Your task to perform on an android device: Open sound settings Image 0: 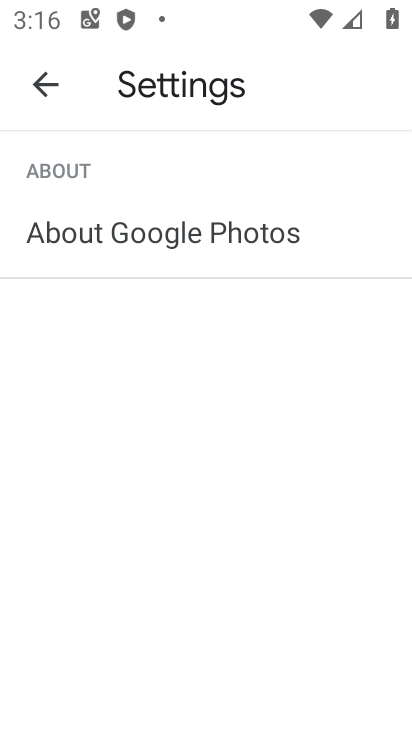
Step 0: press home button
Your task to perform on an android device: Open sound settings Image 1: 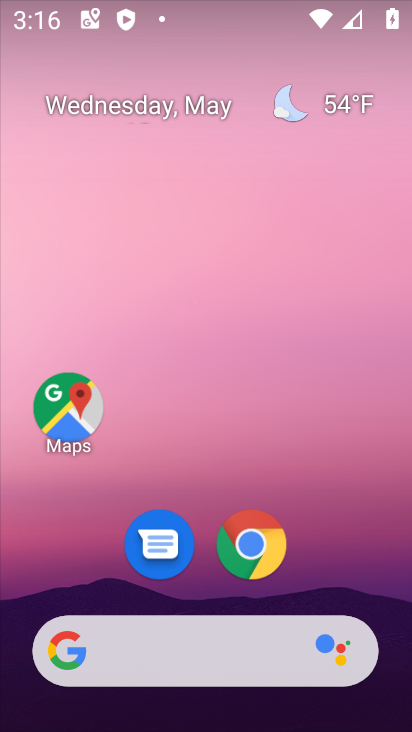
Step 1: drag from (251, 477) to (350, 57)
Your task to perform on an android device: Open sound settings Image 2: 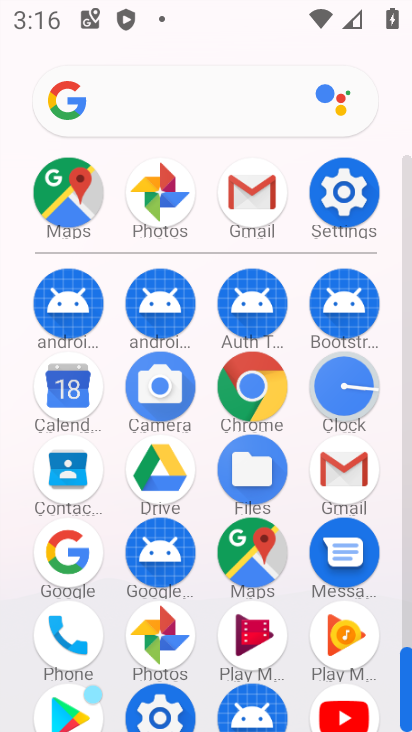
Step 2: click (350, 205)
Your task to perform on an android device: Open sound settings Image 3: 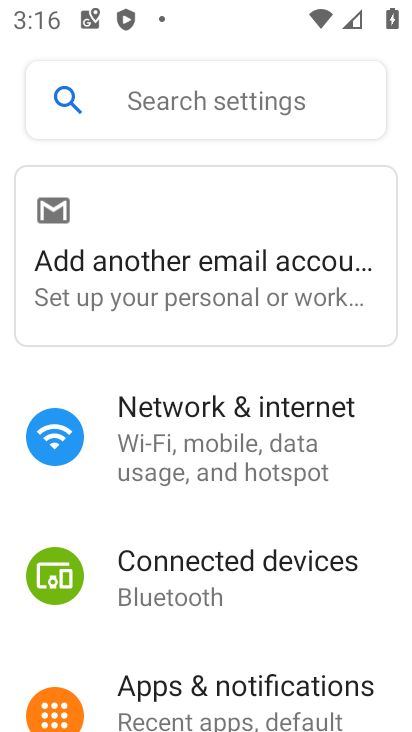
Step 3: drag from (169, 723) to (261, 192)
Your task to perform on an android device: Open sound settings Image 4: 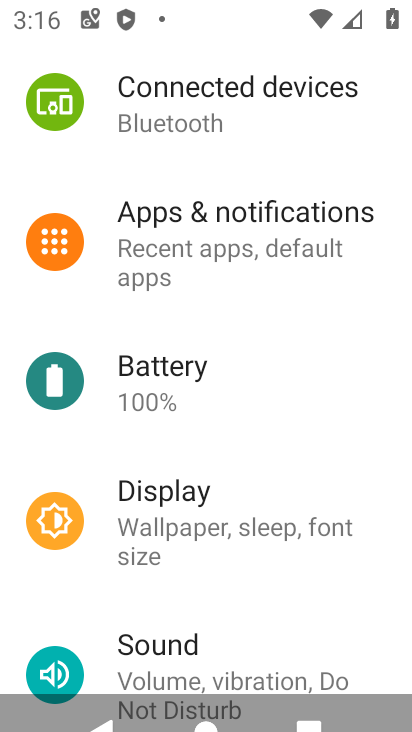
Step 4: click (171, 623)
Your task to perform on an android device: Open sound settings Image 5: 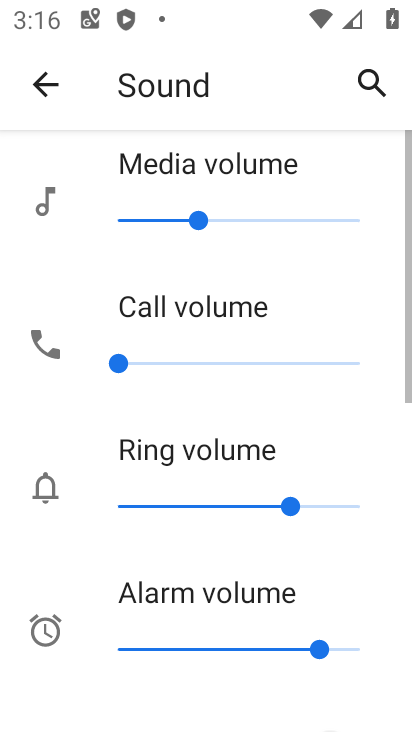
Step 5: task complete